Your task to perform on an android device: turn off javascript in the chrome app Image 0: 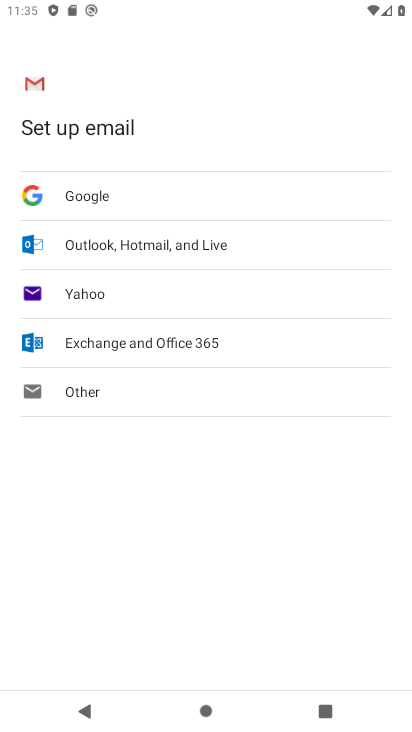
Step 0: press home button
Your task to perform on an android device: turn off javascript in the chrome app Image 1: 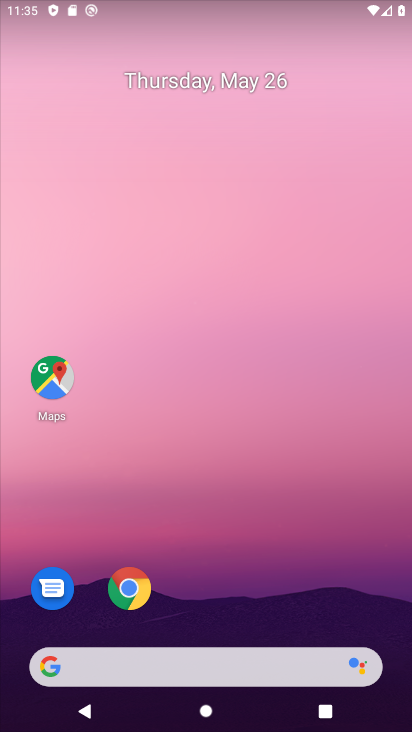
Step 1: click (133, 612)
Your task to perform on an android device: turn off javascript in the chrome app Image 2: 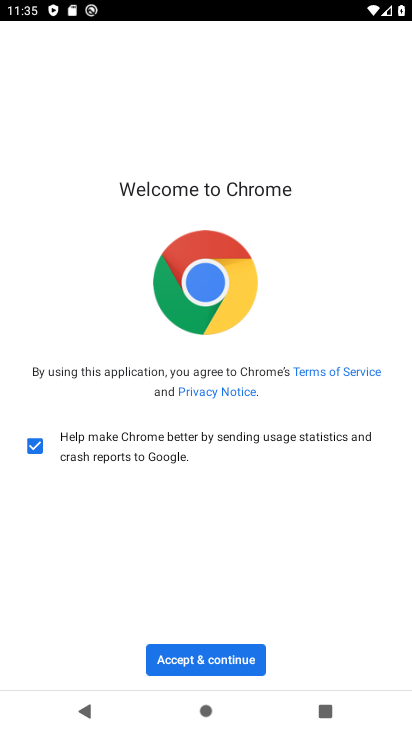
Step 2: click (230, 663)
Your task to perform on an android device: turn off javascript in the chrome app Image 3: 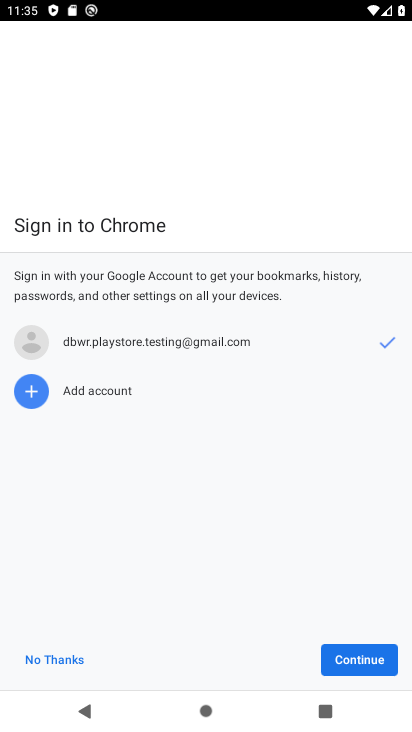
Step 3: click (353, 657)
Your task to perform on an android device: turn off javascript in the chrome app Image 4: 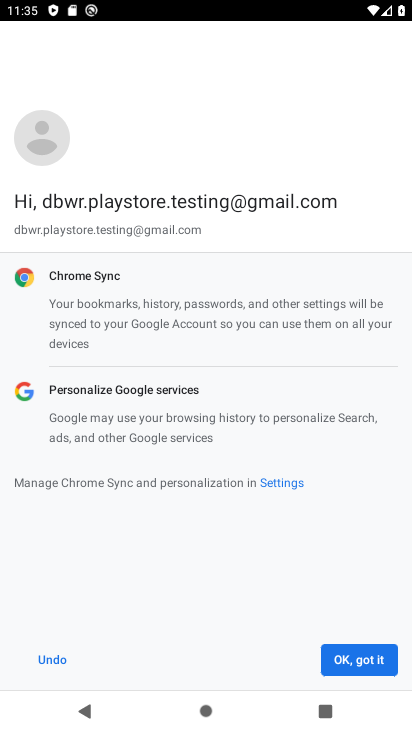
Step 4: click (353, 657)
Your task to perform on an android device: turn off javascript in the chrome app Image 5: 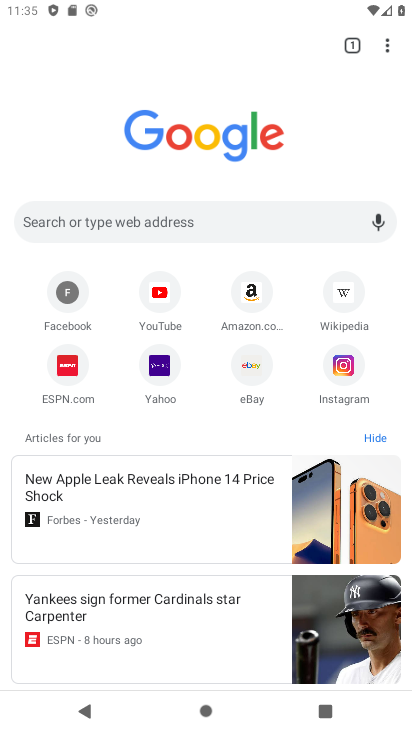
Step 5: click (381, 52)
Your task to perform on an android device: turn off javascript in the chrome app Image 6: 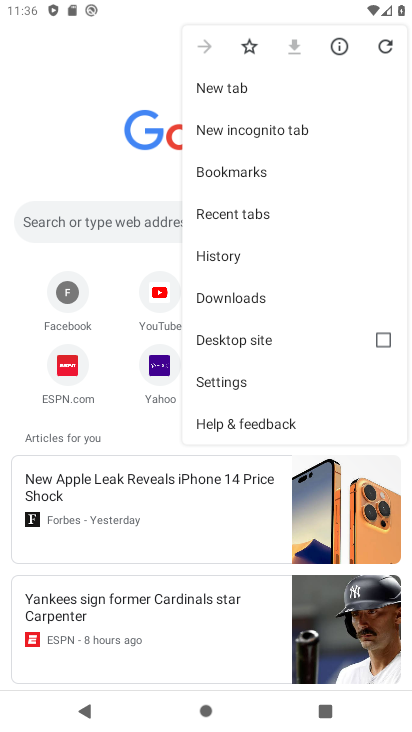
Step 6: click (228, 375)
Your task to perform on an android device: turn off javascript in the chrome app Image 7: 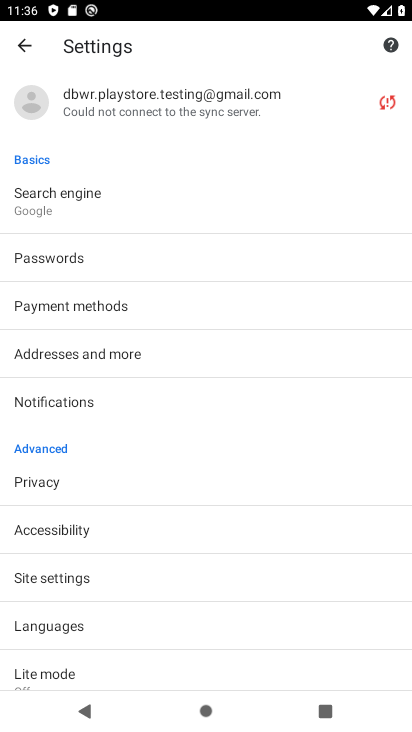
Step 7: drag from (246, 602) to (237, 437)
Your task to perform on an android device: turn off javascript in the chrome app Image 8: 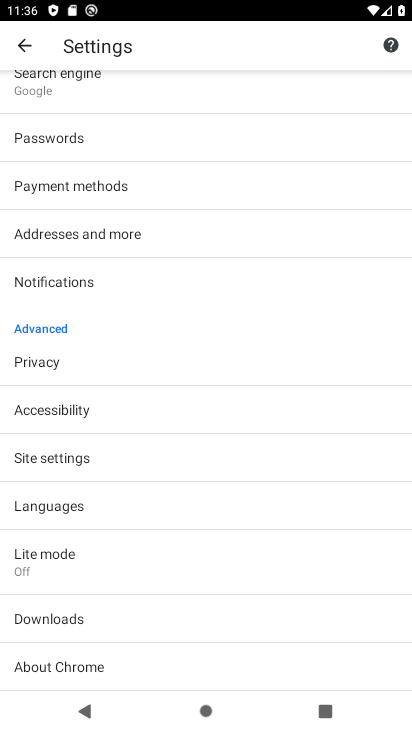
Step 8: click (113, 458)
Your task to perform on an android device: turn off javascript in the chrome app Image 9: 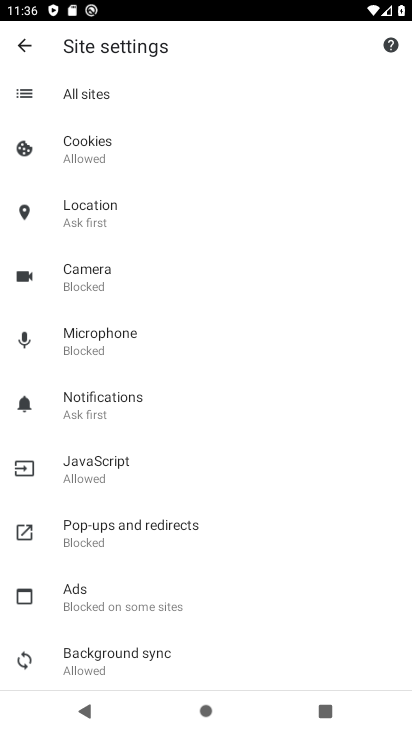
Step 9: click (138, 477)
Your task to perform on an android device: turn off javascript in the chrome app Image 10: 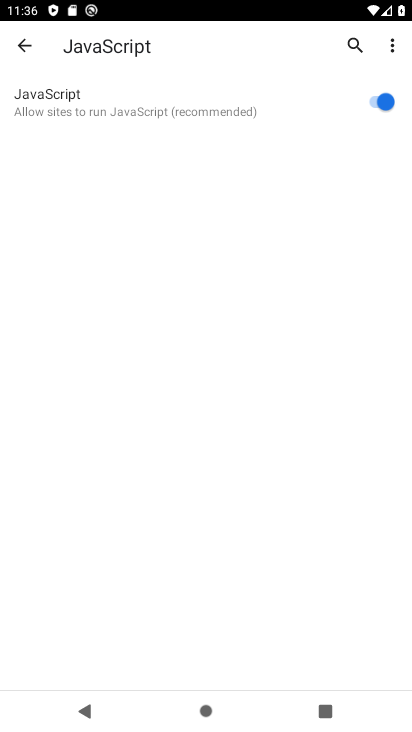
Step 10: click (384, 104)
Your task to perform on an android device: turn off javascript in the chrome app Image 11: 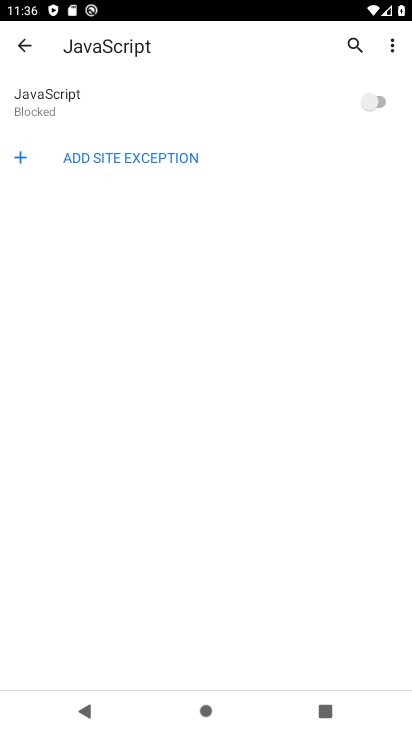
Step 11: task complete